Your task to perform on an android device: Open Google Chrome and open the bookmarks view Image 0: 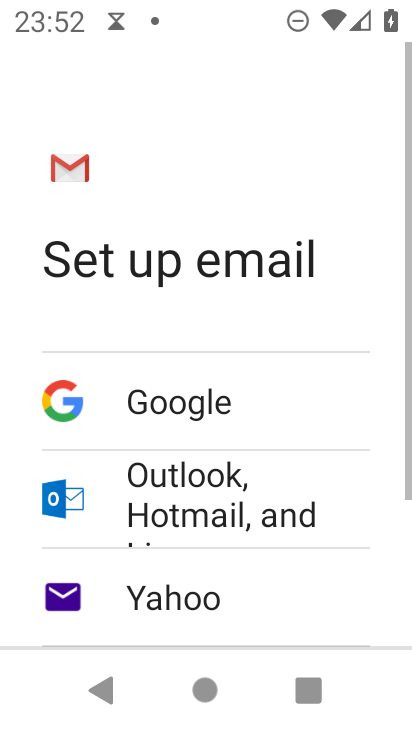
Step 0: press home button
Your task to perform on an android device: Open Google Chrome and open the bookmarks view Image 1: 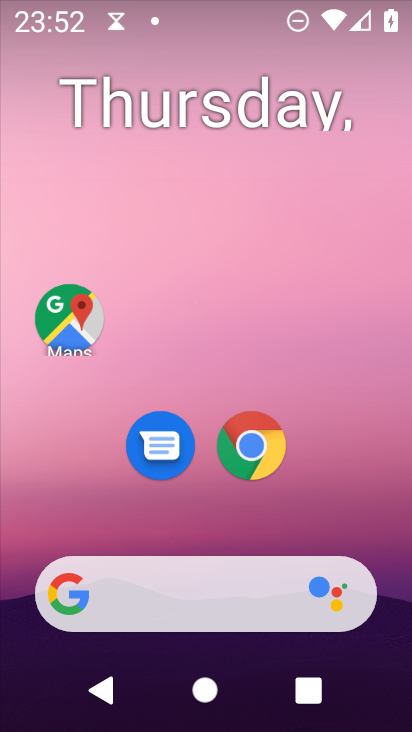
Step 1: click (254, 453)
Your task to perform on an android device: Open Google Chrome and open the bookmarks view Image 2: 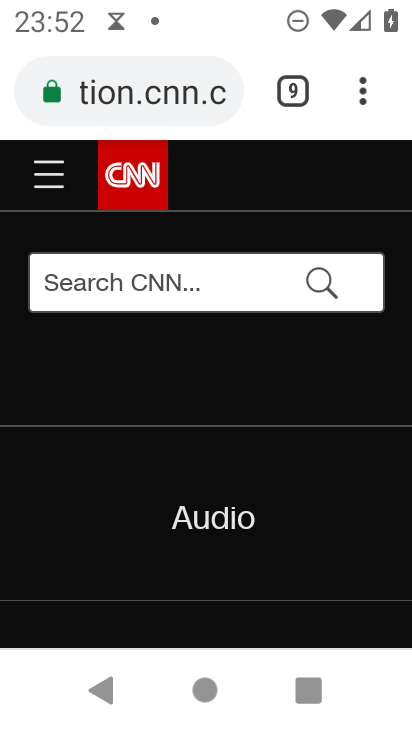
Step 2: click (362, 98)
Your task to perform on an android device: Open Google Chrome and open the bookmarks view Image 3: 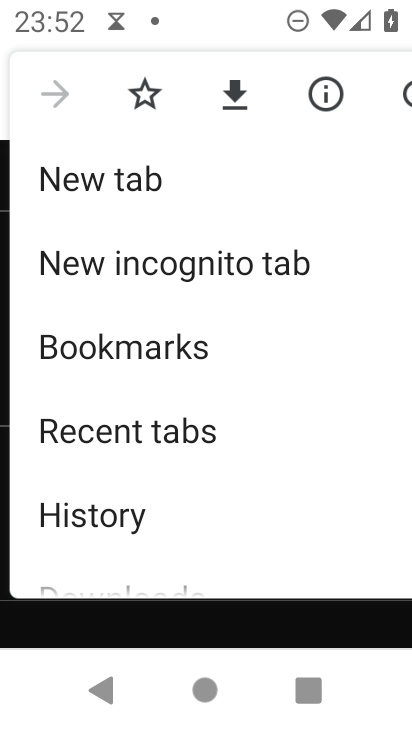
Step 3: click (76, 349)
Your task to perform on an android device: Open Google Chrome and open the bookmarks view Image 4: 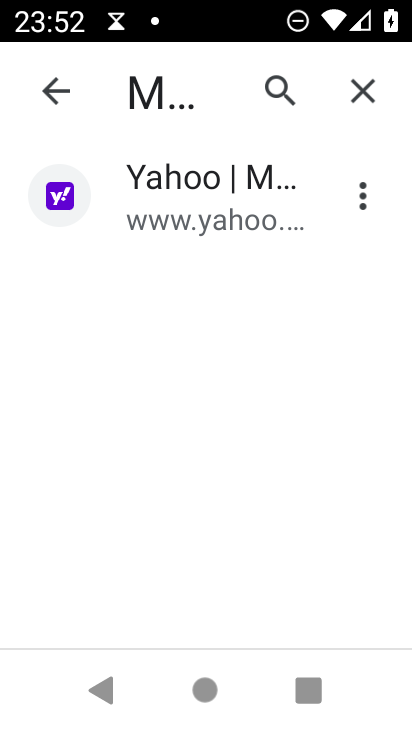
Step 4: task complete